Your task to perform on an android device: open the mobile data screen to see how much data has been used Image 0: 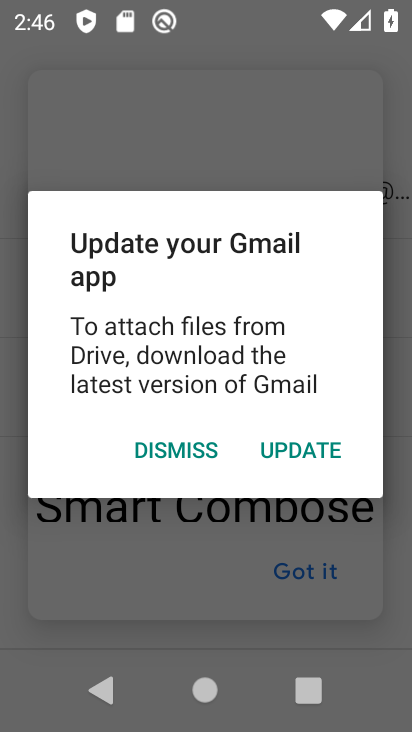
Step 0: press home button
Your task to perform on an android device: open the mobile data screen to see how much data has been used Image 1: 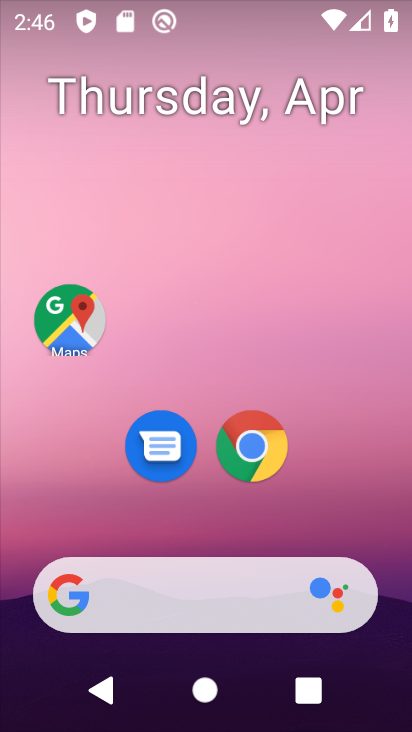
Step 1: drag from (285, 630) to (335, 73)
Your task to perform on an android device: open the mobile data screen to see how much data has been used Image 2: 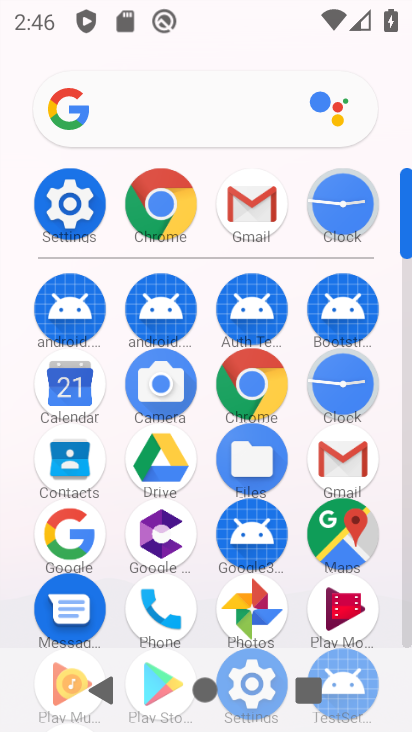
Step 2: click (89, 202)
Your task to perform on an android device: open the mobile data screen to see how much data has been used Image 3: 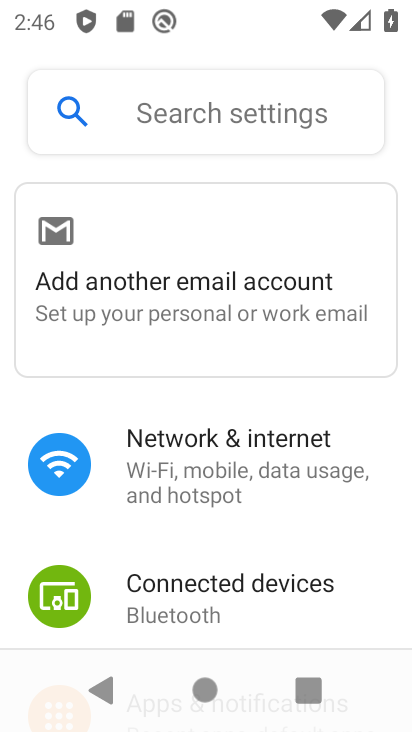
Step 3: click (177, 121)
Your task to perform on an android device: open the mobile data screen to see how much data has been used Image 4: 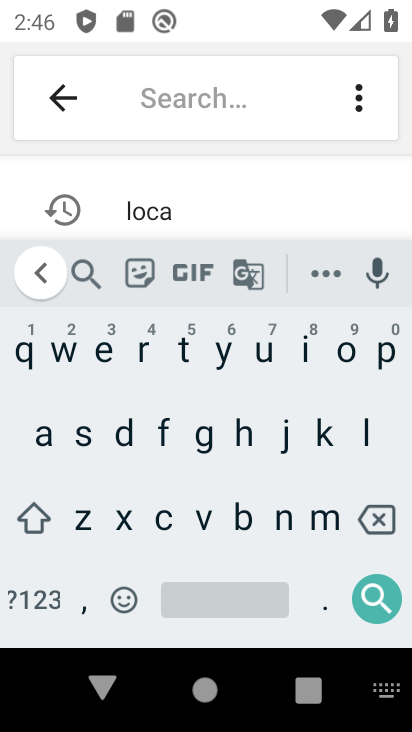
Step 4: click (323, 519)
Your task to perform on an android device: open the mobile data screen to see how much data has been used Image 5: 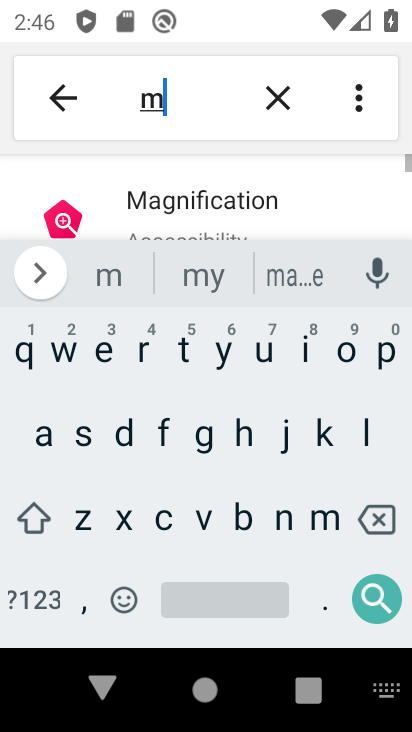
Step 5: click (342, 361)
Your task to perform on an android device: open the mobile data screen to see how much data has been used Image 6: 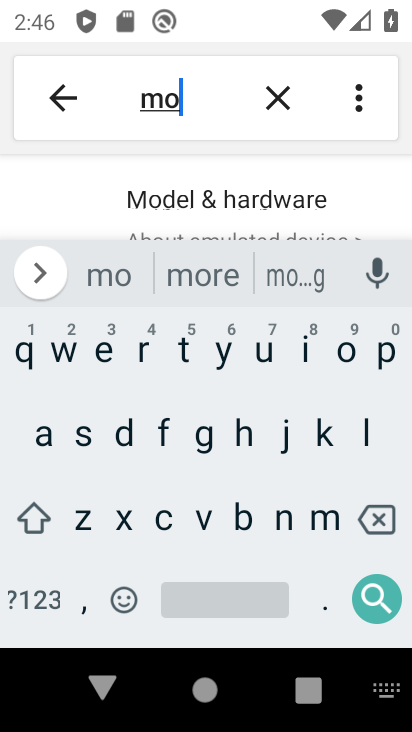
Step 6: click (241, 519)
Your task to perform on an android device: open the mobile data screen to see how much data has been used Image 7: 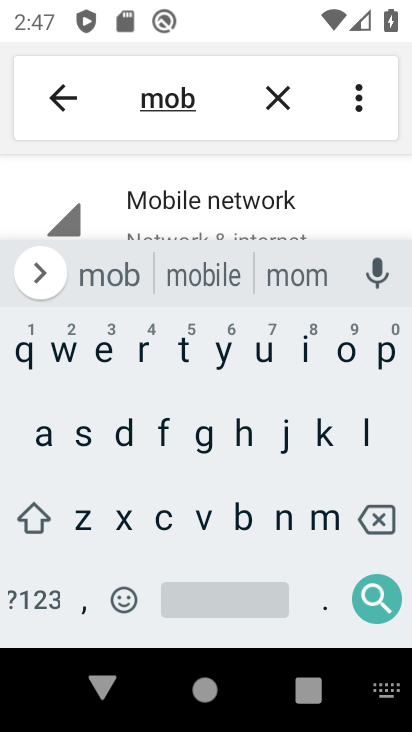
Step 7: click (306, 358)
Your task to perform on an android device: open the mobile data screen to see how much data has been used Image 8: 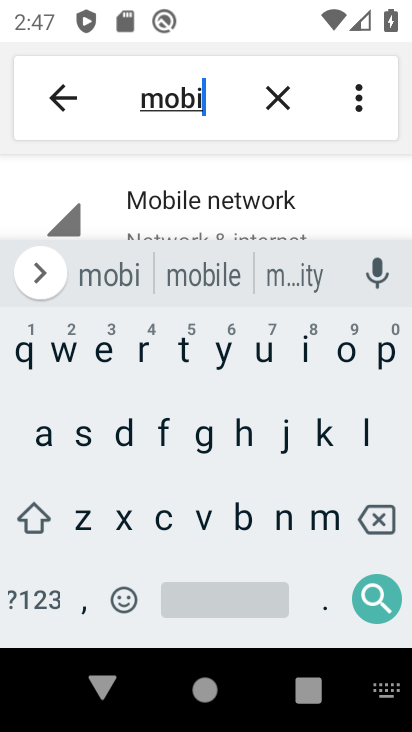
Step 8: click (210, 289)
Your task to perform on an android device: open the mobile data screen to see how much data has been used Image 9: 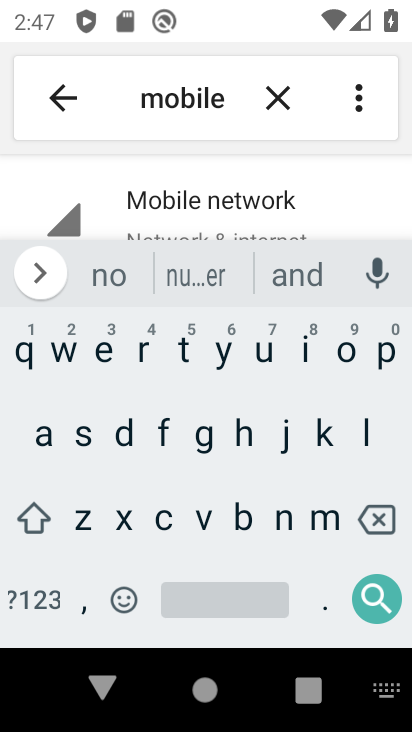
Step 9: click (116, 431)
Your task to perform on an android device: open the mobile data screen to see how much data has been used Image 10: 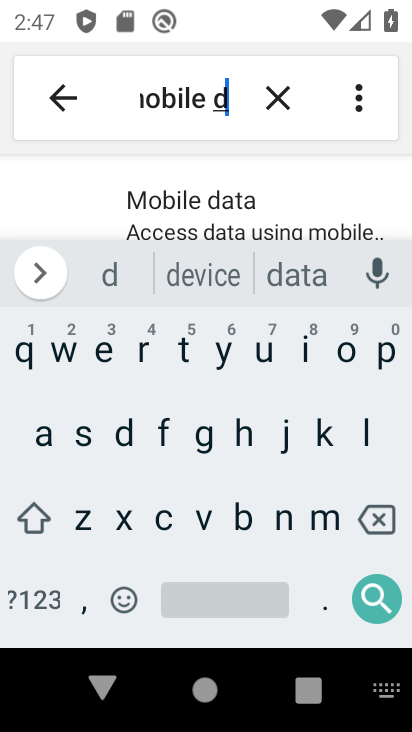
Step 10: click (188, 202)
Your task to perform on an android device: open the mobile data screen to see how much data has been used Image 11: 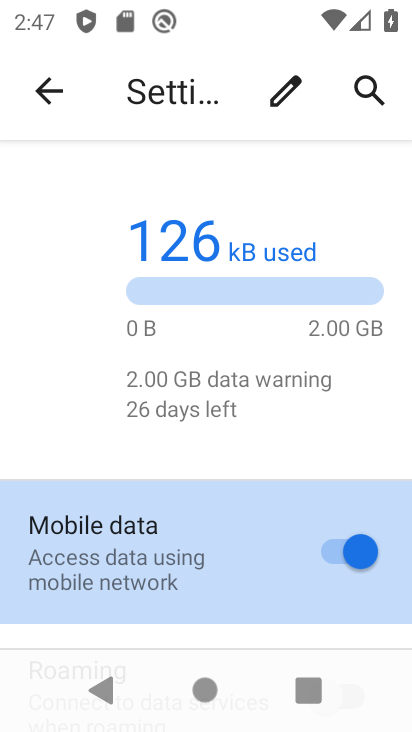
Step 11: task complete